Your task to perform on an android device: Open the web browser Image 0: 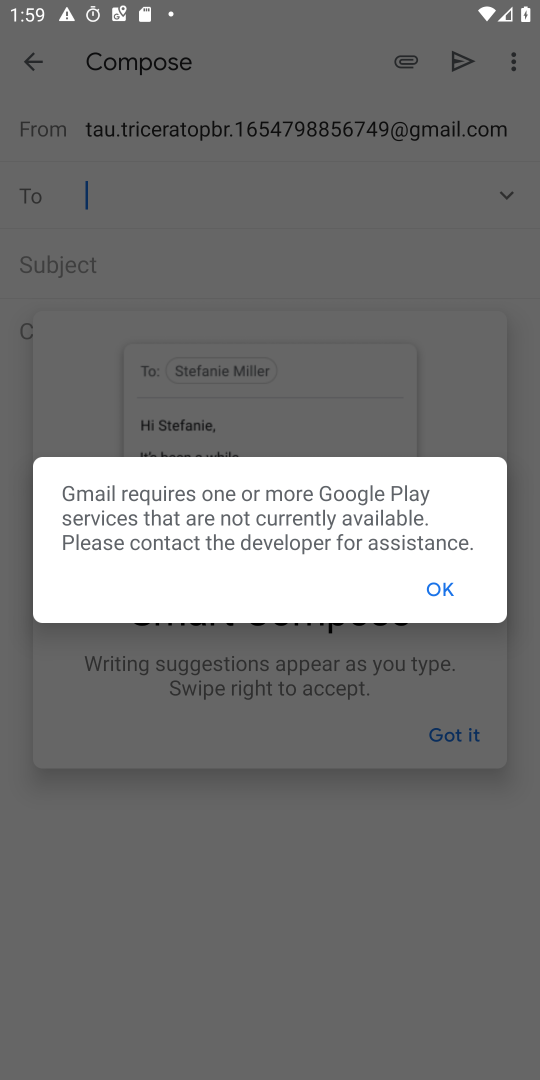
Step 0: press home button
Your task to perform on an android device: Open the web browser Image 1: 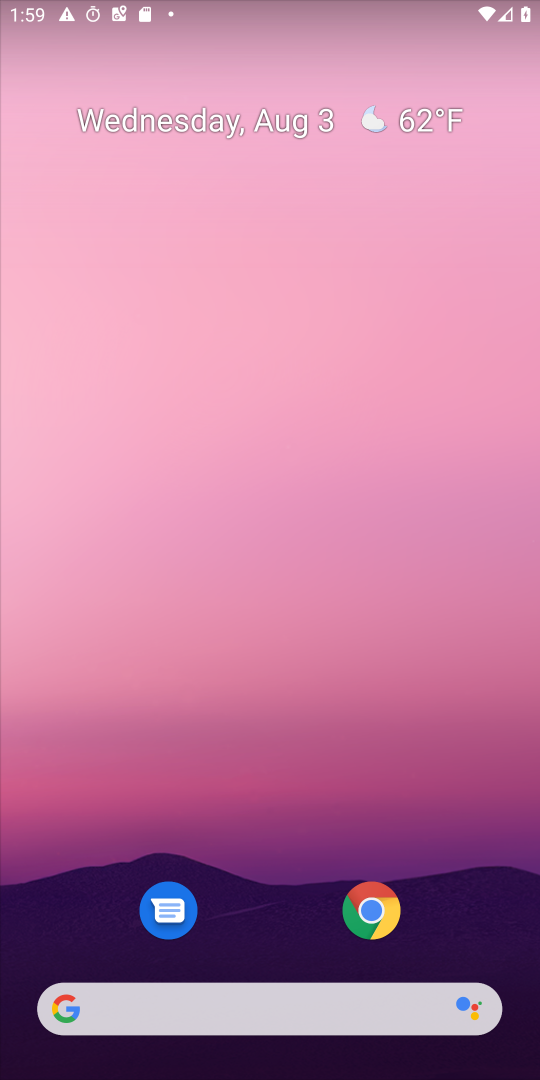
Step 1: drag from (327, 894) to (383, 20)
Your task to perform on an android device: Open the web browser Image 2: 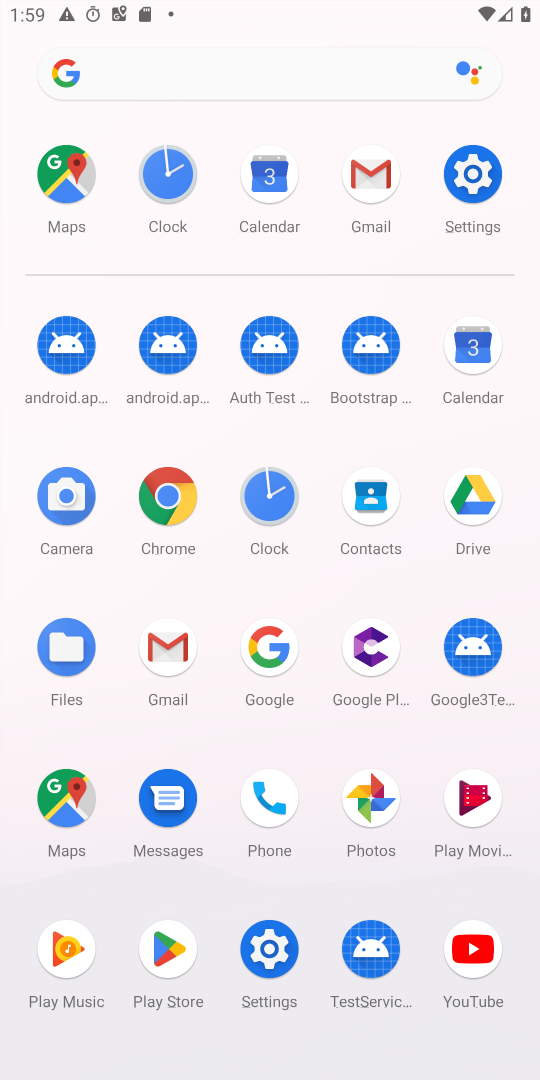
Step 2: click (179, 509)
Your task to perform on an android device: Open the web browser Image 3: 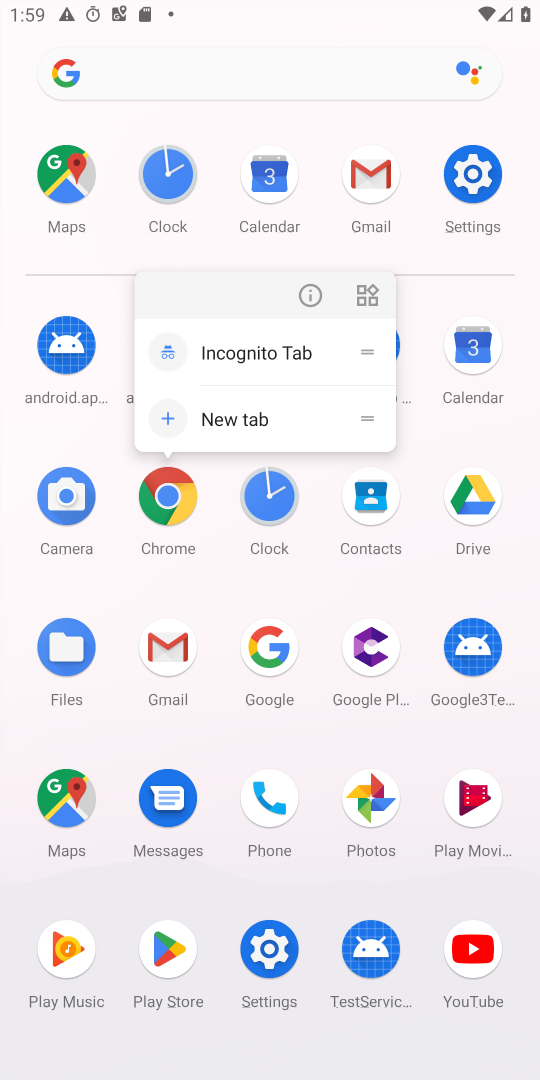
Step 3: click (180, 509)
Your task to perform on an android device: Open the web browser Image 4: 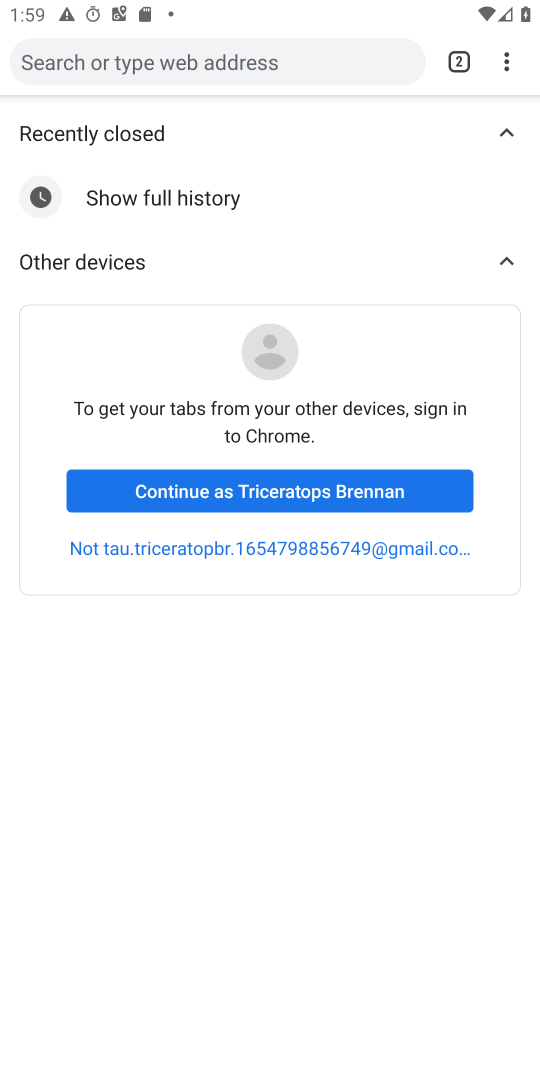
Step 4: click (326, 61)
Your task to perform on an android device: Open the web browser Image 5: 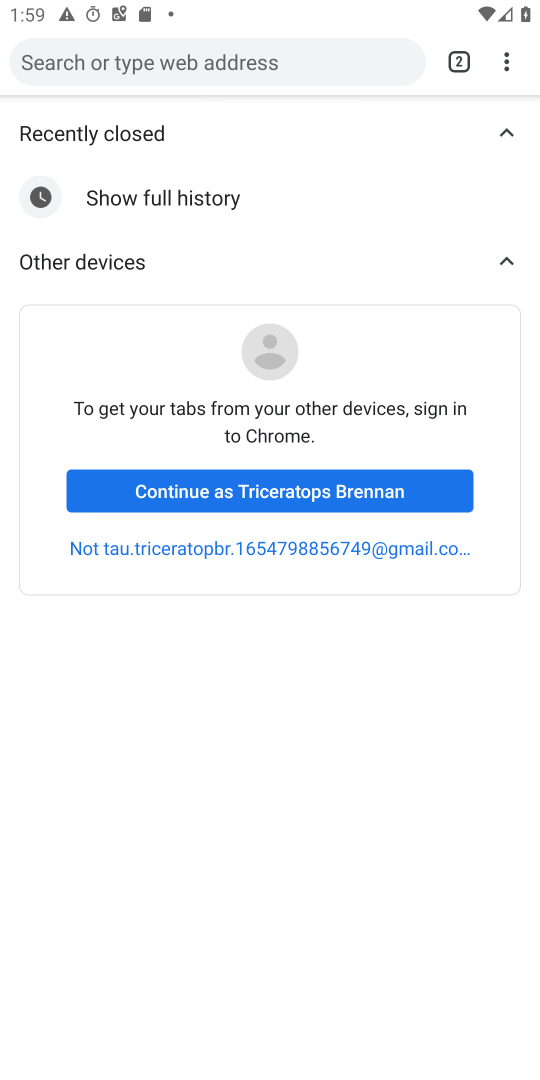
Step 5: click (326, 61)
Your task to perform on an android device: Open the web browser Image 6: 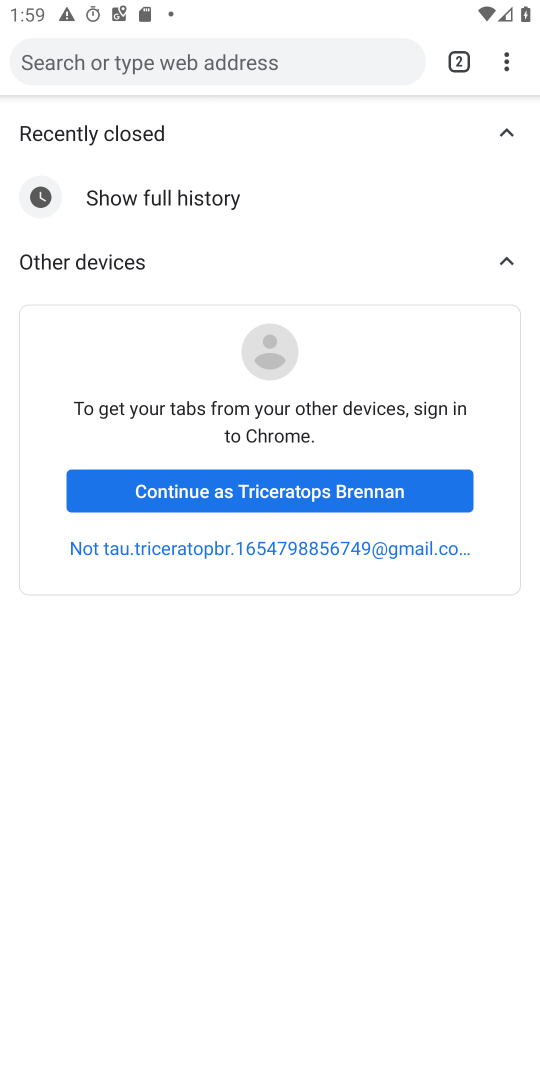
Step 6: click (261, 58)
Your task to perform on an android device: Open the web browser Image 7: 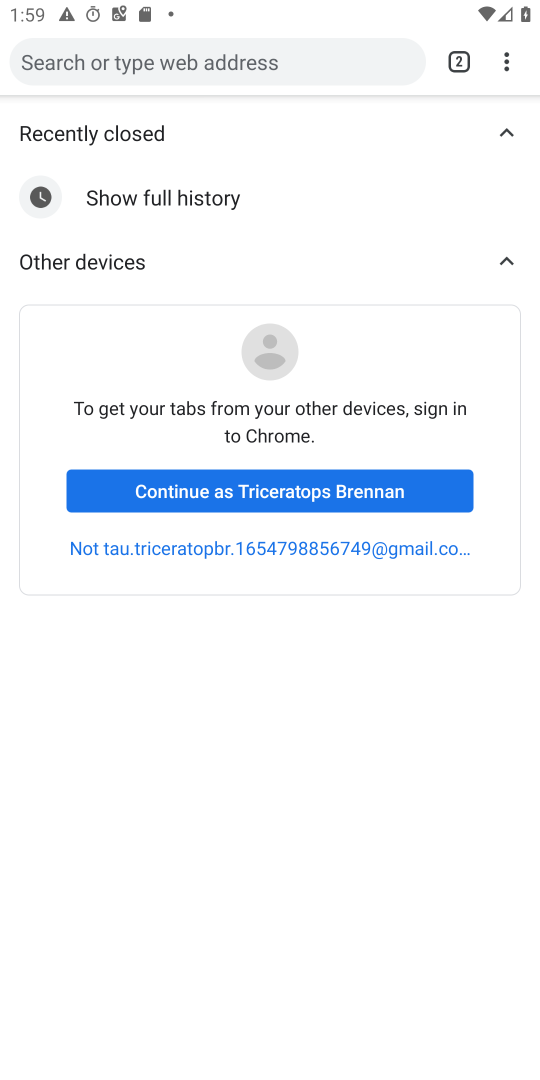
Step 7: click (256, 55)
Your task to perform on an android device: Open the web browser Image 8: 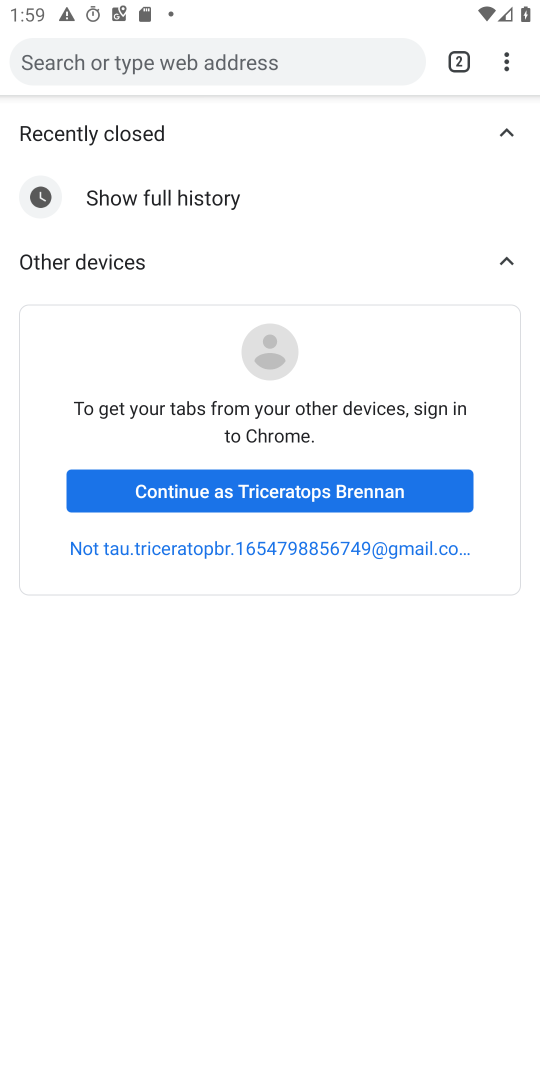
Step 8: click (228, 58)
Your task to perform on an android device: Open the web browser Image 9: 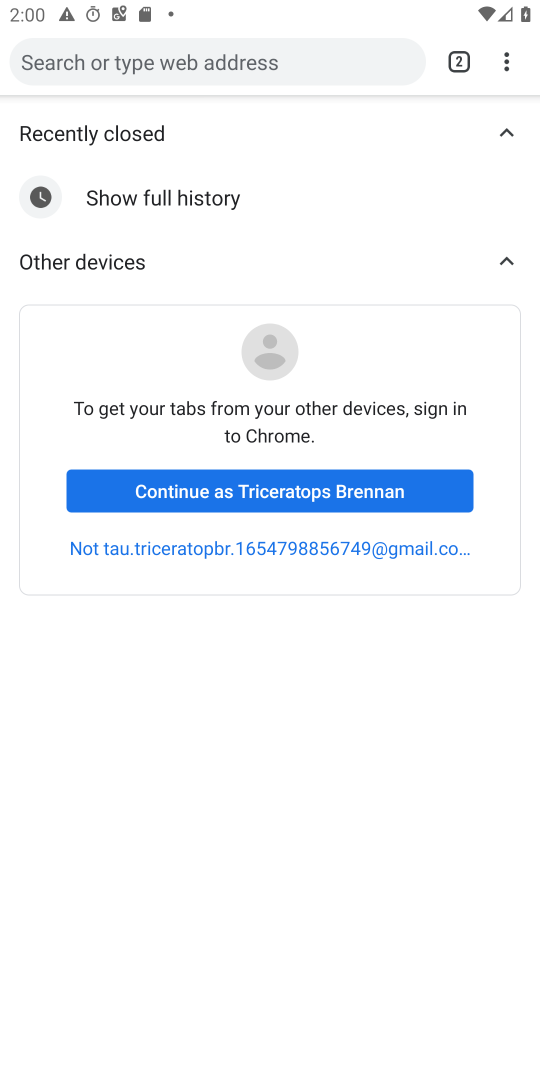
Step 9: task complete